Your task to perform on an android device: turn off smart reply in the gmail app Image 0: 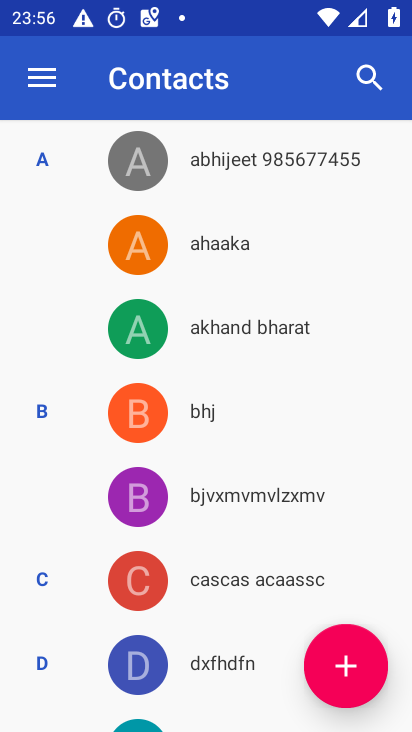
Step 0: press back button
Your task to perform on an android device: turn off smart reply in the gmail app Image 1: 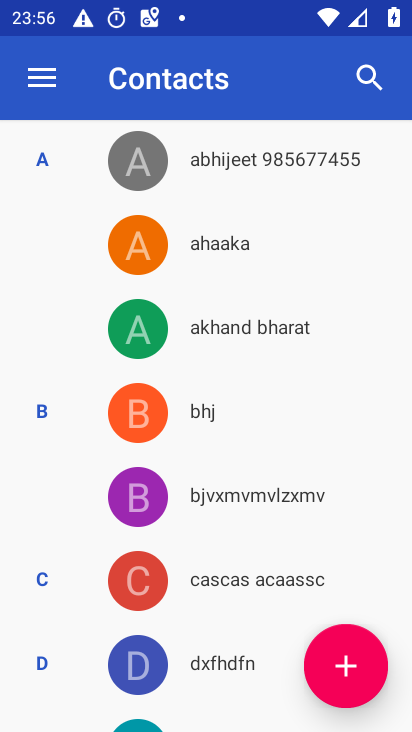
Step 1: press back button
Your task to perform on an android device: turn off smart reply in the gmail app Image 2: 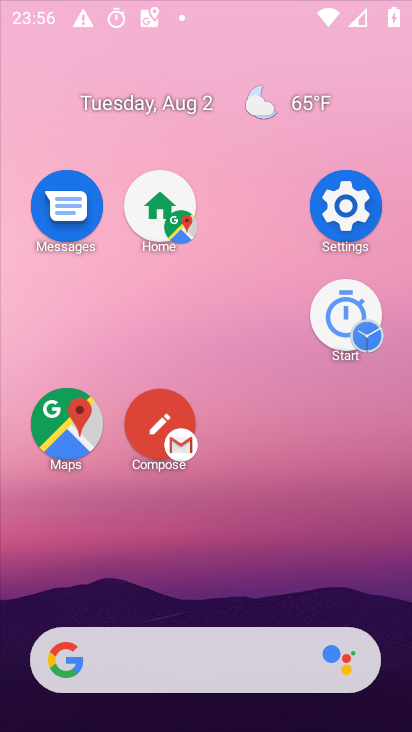
Step 2: press back button
Your task to perform on an android device: turn off smart reply in the gmail app Image 3: 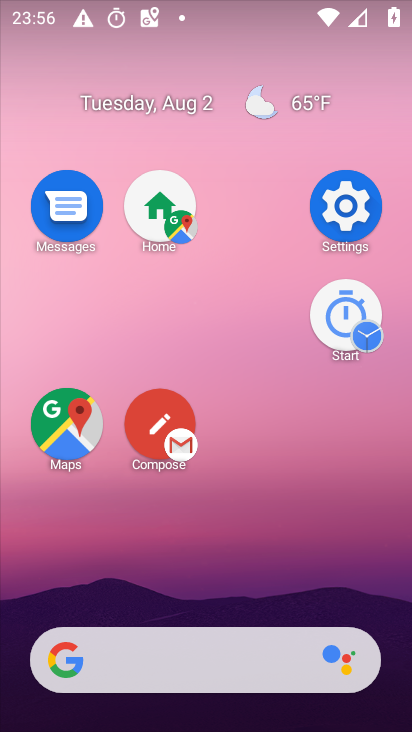
Step 3: press home button
Your task to perform on an android device: turn off smart reply in the gmail app Image 4: 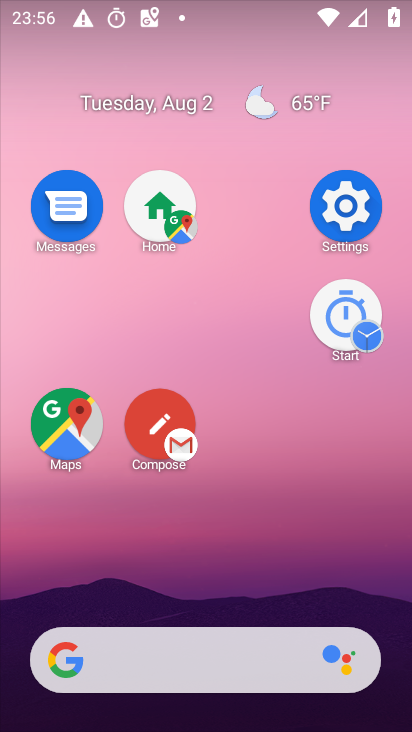
Step 4: drag from (203, 673) to (196, 252)
Your task to perform on an android device: turn off smart reply in the gmail app Image 5: 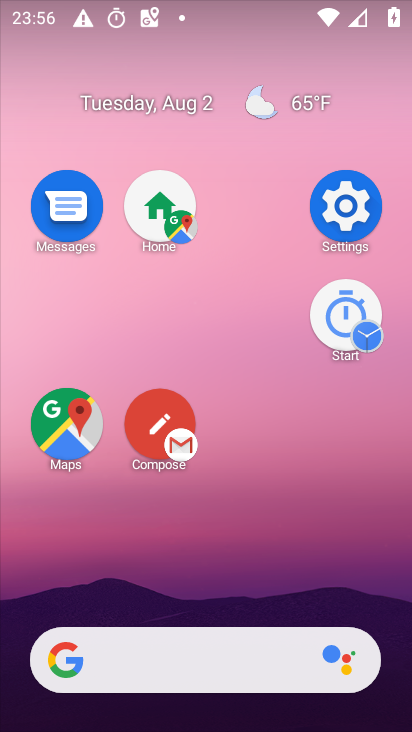
Step 5: drag from (242, 580) to (242, 206)
Your task to perform on an android device: turn off smart reply in the gmail app Image 6: 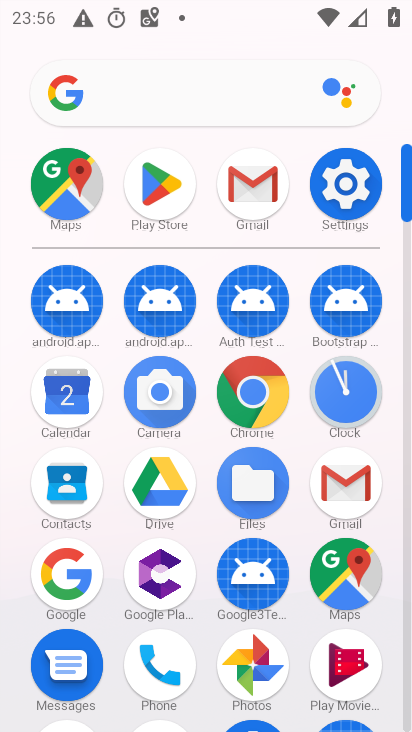
Step 6: drag from (207, 631) to (200, 318)
Your task to perform on an android device: turn off smart reply in the gmail app Image 7: 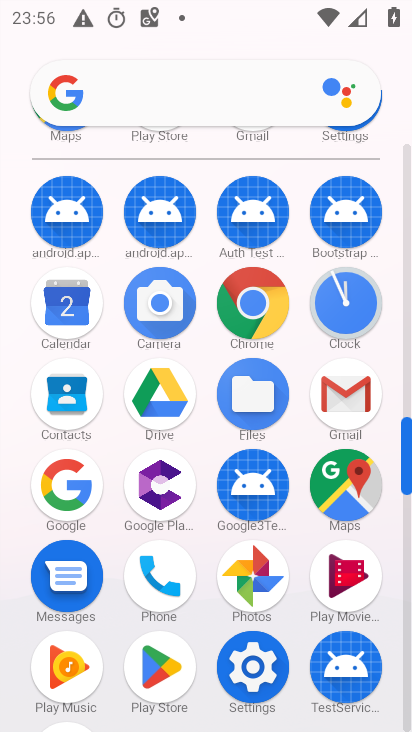
Step 7: click (333, 383)
Your task to perform on an android device: turn off smart reply in the gmail app Image 8: 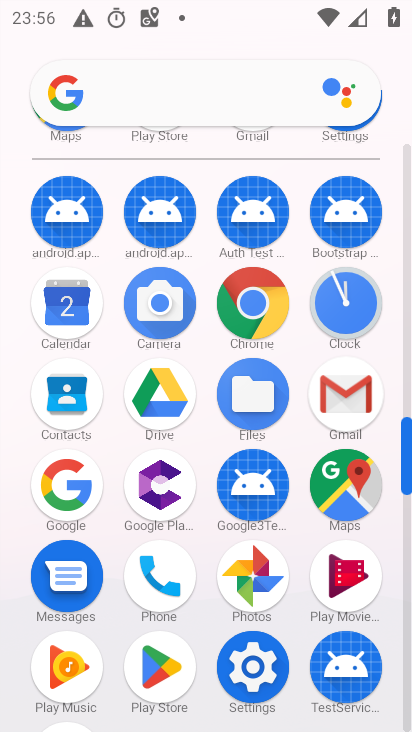
Step 8: click (335, 378)
Your task to perform on an android device: turn off smart reply in the gmail app Image 9: 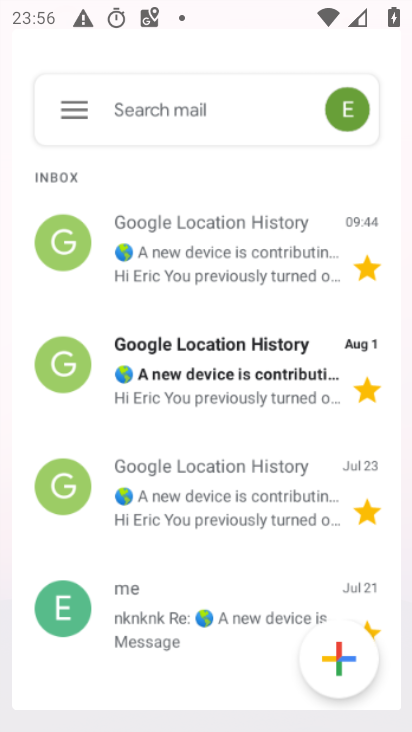
Step 9: click (335, 380)
Your task to perform on an android device: turn off smart reply in the gmail app Image 10: 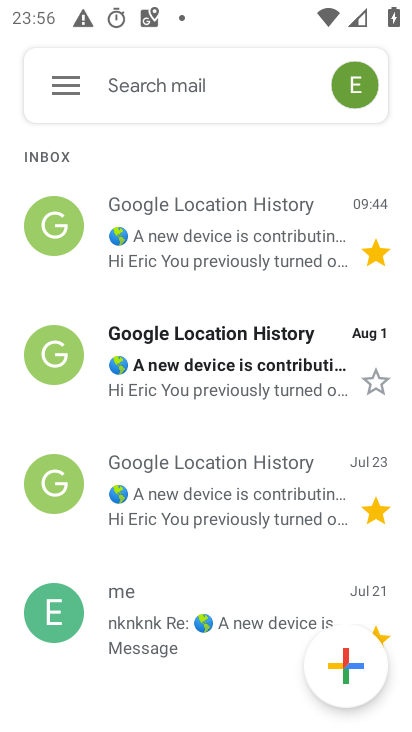
Step 10: press back button
Your task to perform on an android device: turn off smart reply in the gmail app Image 11: 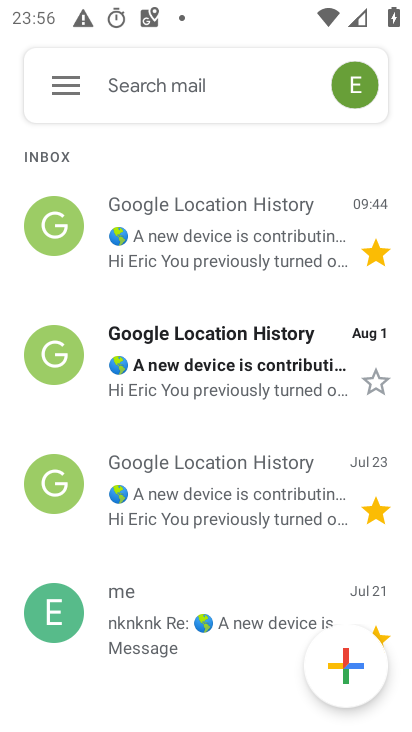
Step 11: press back button
Your task to perform on an android device: turn off smart reply in the gmail app Image 12: 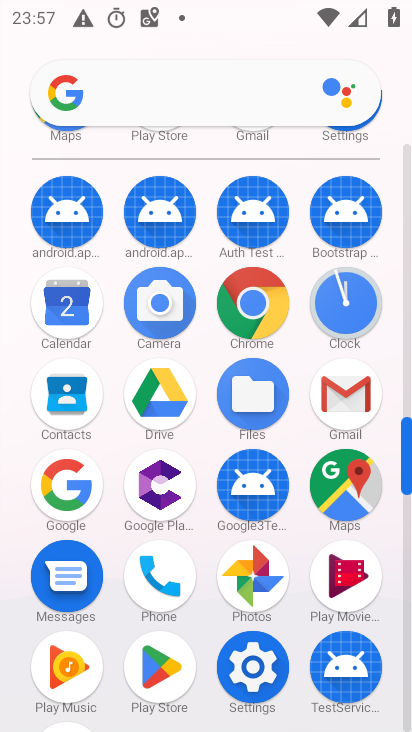
Step 12: press back button
Your task to perform on an android device: turn off smart reply in the gmail app Image 13: 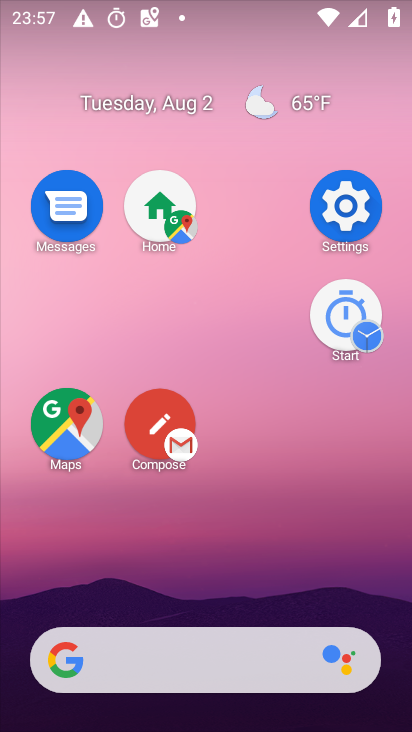
Step 13: drag from (208, 441) to (155, 82)
Your task to perform on an android device: turn off smart reply in the gmail app Image 14: 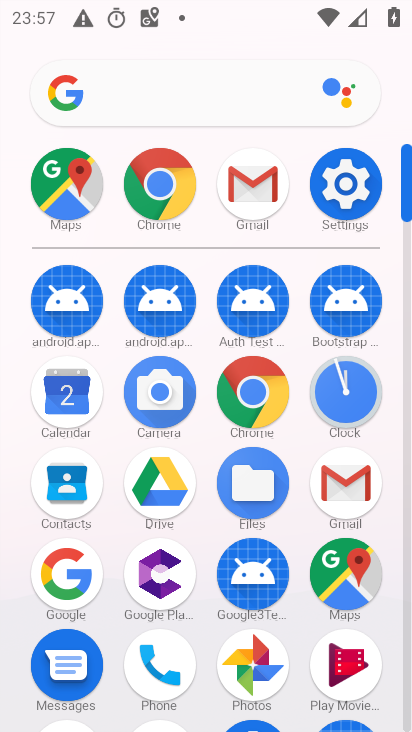
Step 14: click (359, 478)
Your task to perform on an android device: turn off smart reply in the gmail app Image 15: 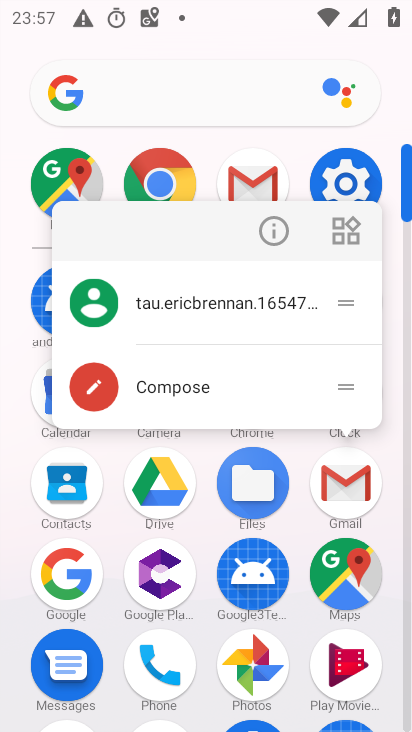
Step 15: click (186, 377)
Your task to perform on an android device: turn off smart reply in the gmail app Image 16: 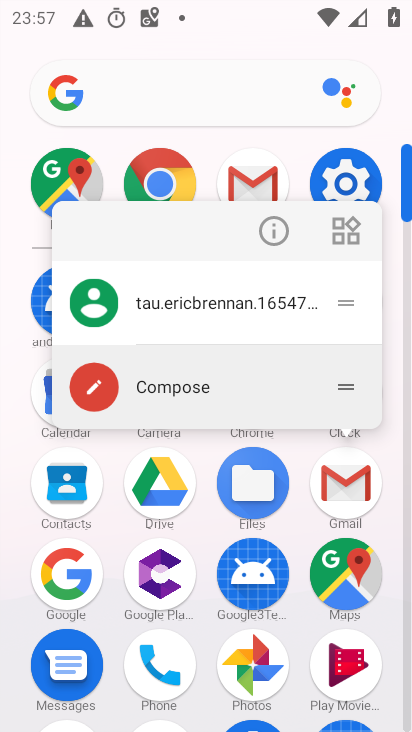
Step 16: click (178, 373)
Your task to perform on an android device: turn off smart reply in the gmail app Image 17: 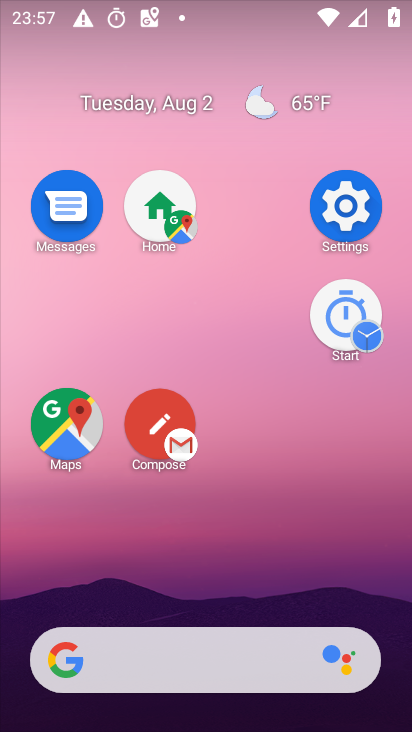
Step 17: drag from (241, 677) to (157, 220)
Your task to perform on an android device: turn off smart reply in the gmail app Image 18: 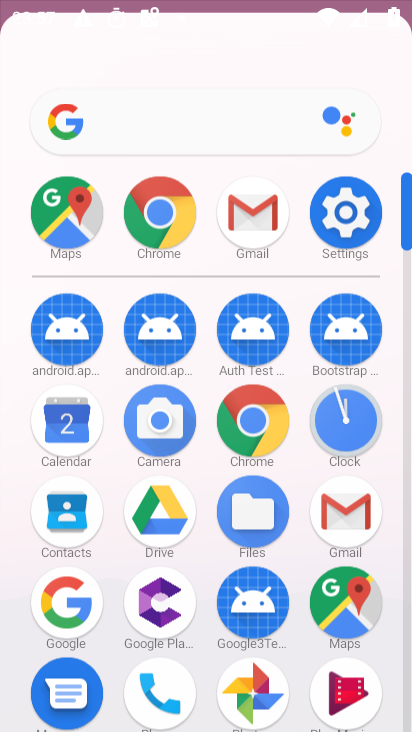
Step 18: drag from (223, 729) to (220, 458)
Your task to perform on an android device: turn off smart reply in the gmail app Image 19: 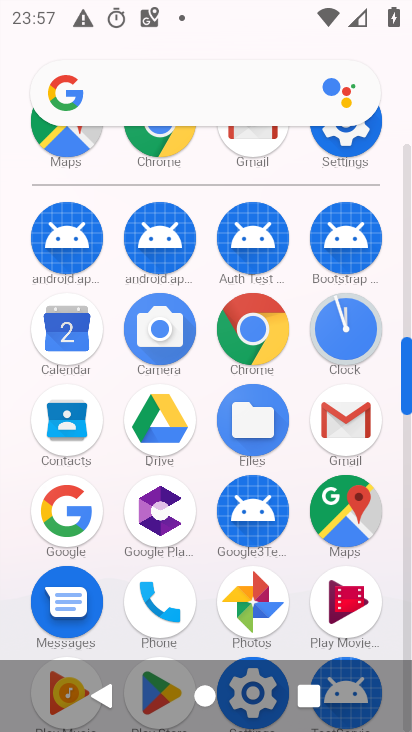
Step 19: click (350, 418)
Your task to perform on an android device: turn off smart reply in the gmail app Image 20: 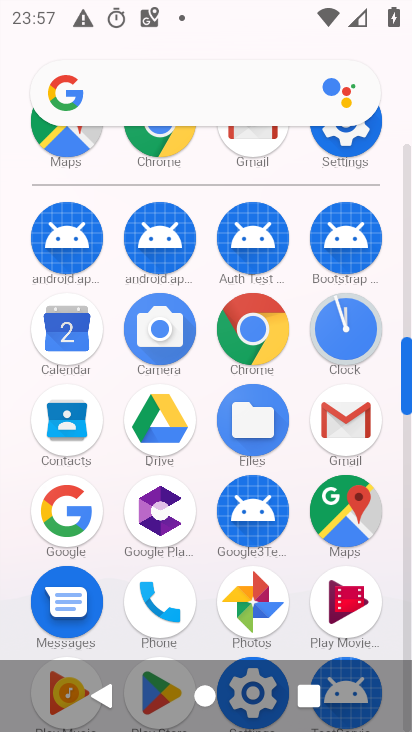
Step 20: click (350, 418)
Your task to perform on an android device: turn off smart reply in the gmail app Image 21: 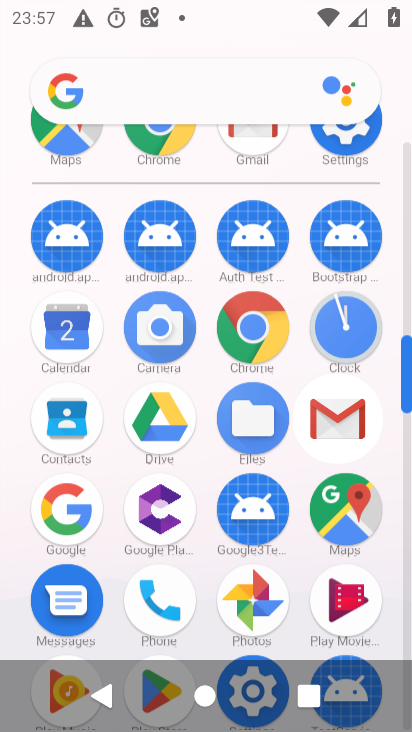
Step 21: click (346, 422)
Your task to perform on an android device: turn off smart reply in the gmail app Image 22: 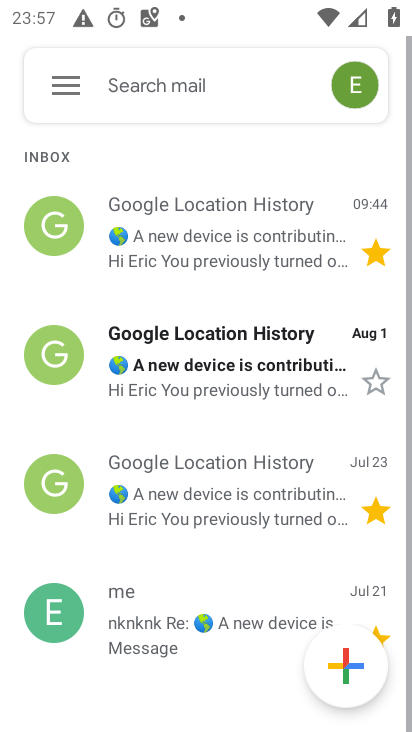
Step 22: drag from (69, 86) to (119, 349)
Your task to perform on an android device: turn off smart reply in the gmail app Image 23: 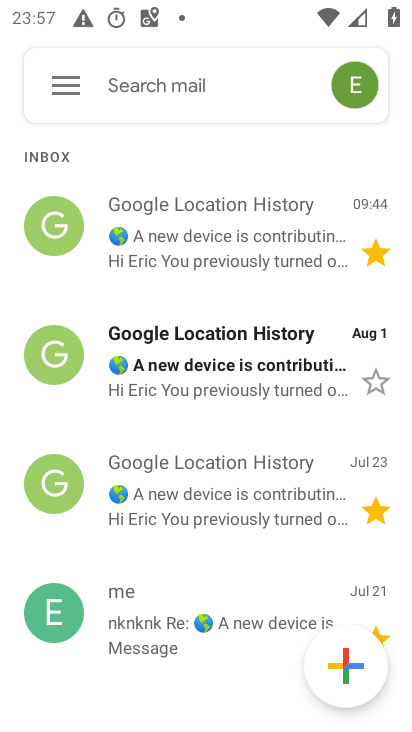
Step 23: drag from (73, 97) to (136, 467)
Your task to perform on an android device: turn off smart reply in the gmail app Image 24: 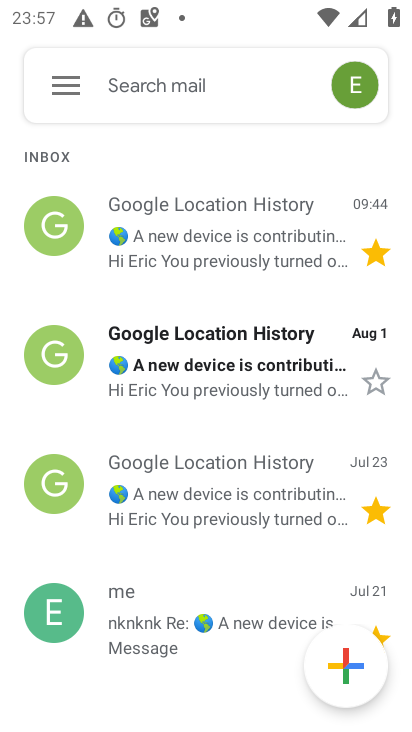
Step 24: click (67, 88)
Your task to perform on an android device: turn off smart reply in the gmail app Image 25: 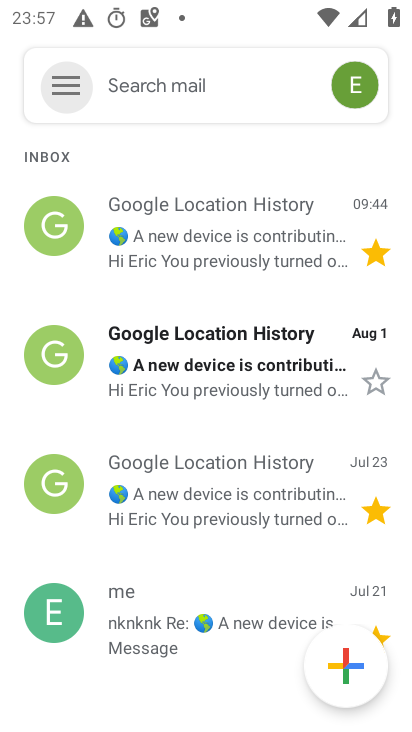
Step 25: click (67, 88)
Your task to perform on an android device: turn off smart reply in the gmail app Image 26: 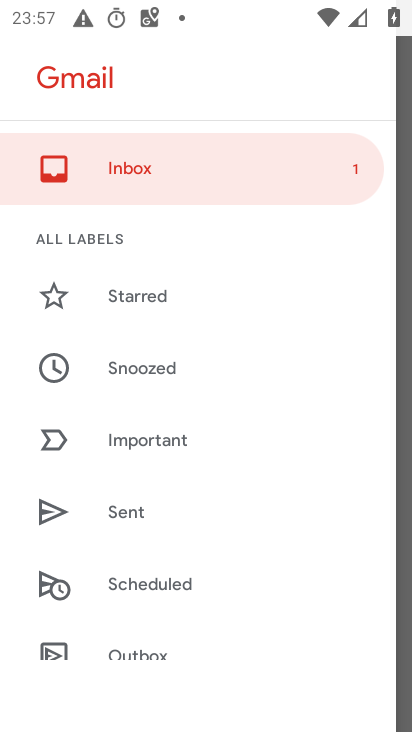
Step 26: drag from (175, 607) to (168, 358)
Your task to perform on an android device: turn off smart reply in the gmail app Image 27: 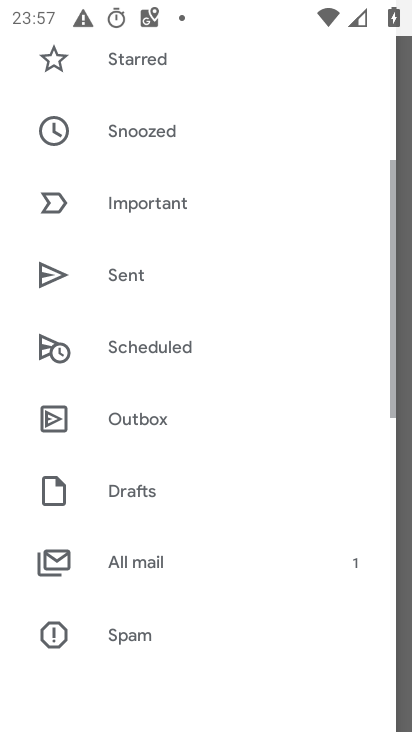
Step 27: drag from (114, 500) to (109, 428)
Your task to perform on an android device: turn off smart reply in the gmail app Image 28: 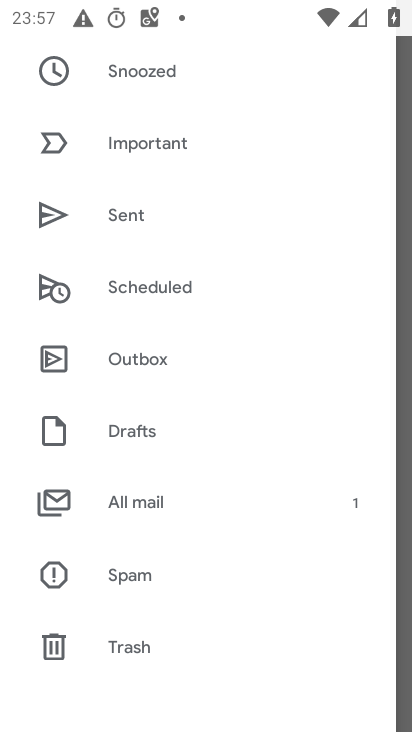
Step 28: drag from (167, 548) to (197, 201)
Your task to perform on an android device: turn off smart reply in the gmail app Image 29: 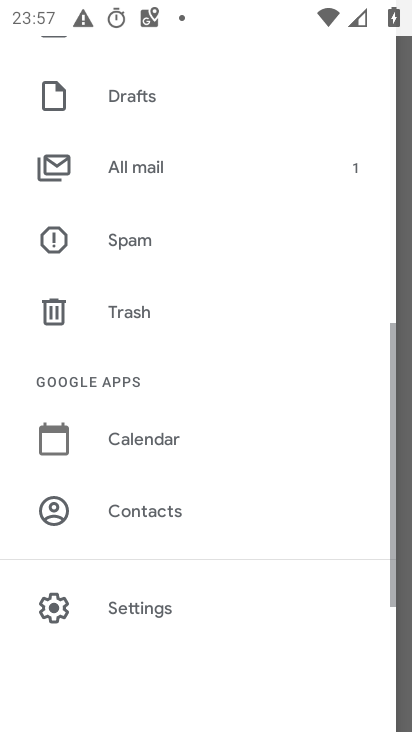
Step 29: drag from (193, 390) to (193, 187)
Your task to perform on an android device: turn off smart reply in the gmail app Image 30: 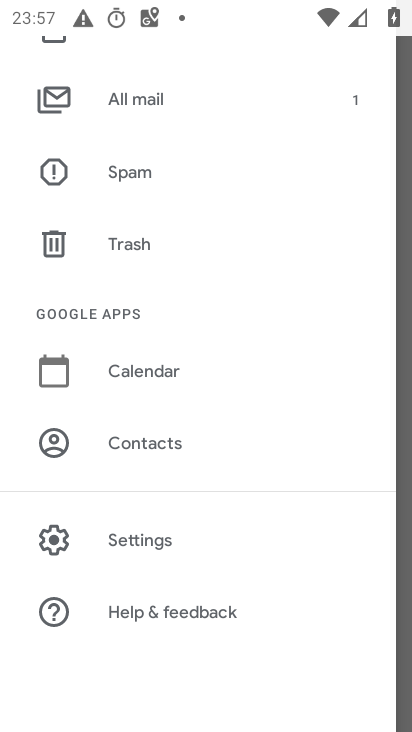
Step 30: click (149, 538)
Your task to perform on an android device: turn off smart reply in the gmail app Image 31: 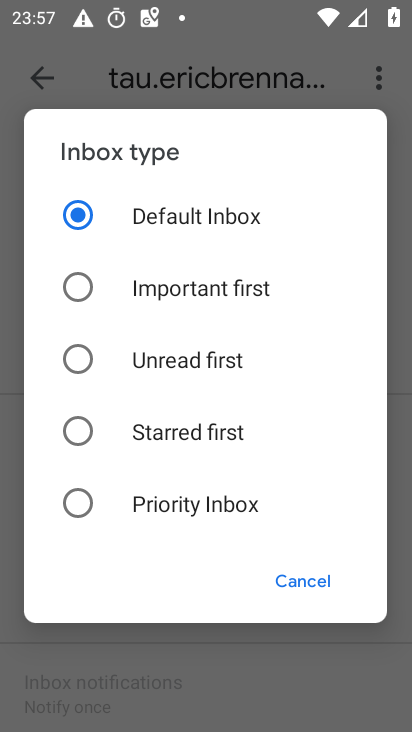
Step 31: click (299, 570)
Your task to perform on an android device: turn off smart reply in the gmail app Image 32: 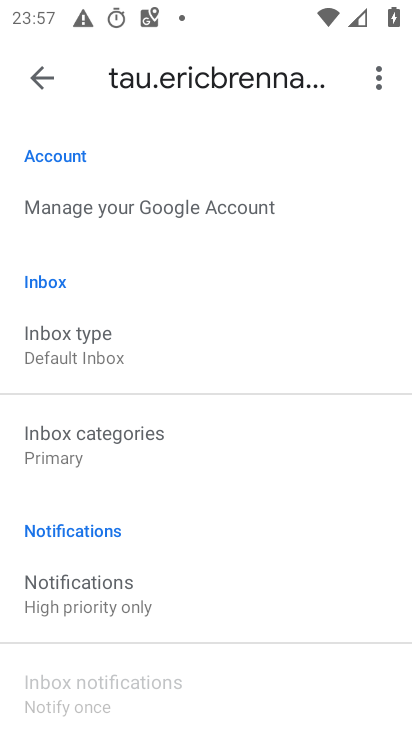
Step 32: drag from (110, 584) to (115, 165)
Your task to perform on an android device: turn off smart reply in the gmail app Image 33: 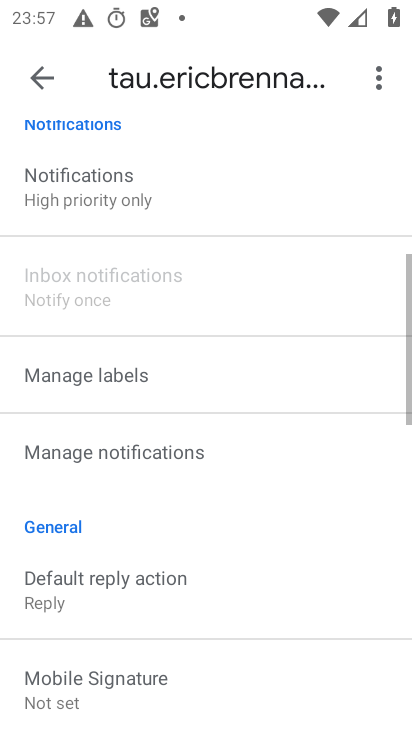
Step 33: click (98, 142)
Your task to perform on an android device: turn off smart reply in the gmail app Image 34: 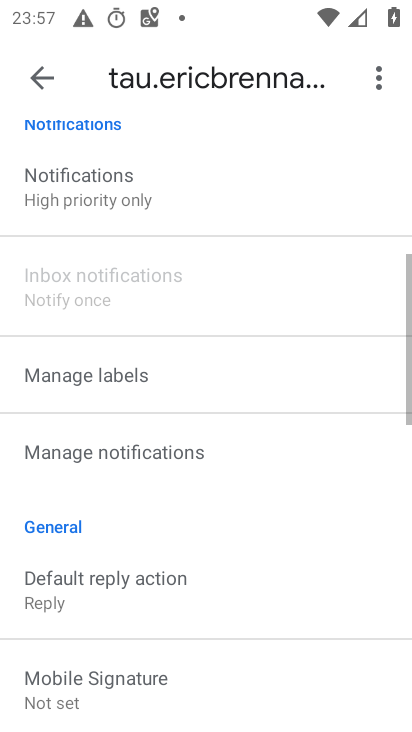
Step 34: drag from (81, 465) to (81, 254)
Your task to perform on an android device: turn off smart reply in the gmail app Image 35: 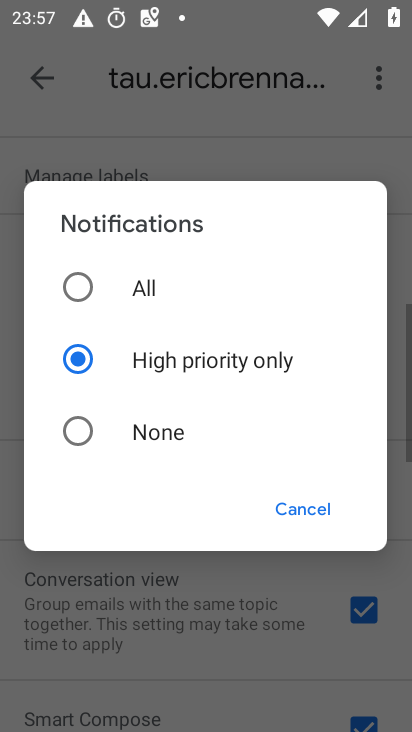
Step 35: drag from (103, 600) to (143, 243)
Your task to perform on an android device: turn off smart reply in the gmail app Image 36: 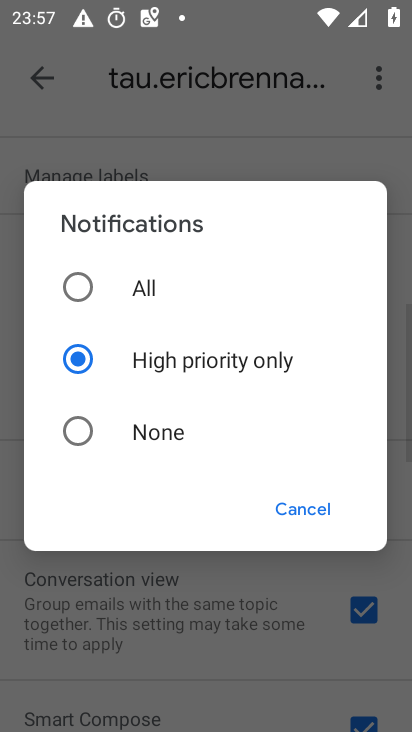
Step 36: drag from (165, 509) to (173, 300)
Your task to perform on an android device: turn off smart reply in the gmail app Image 37: 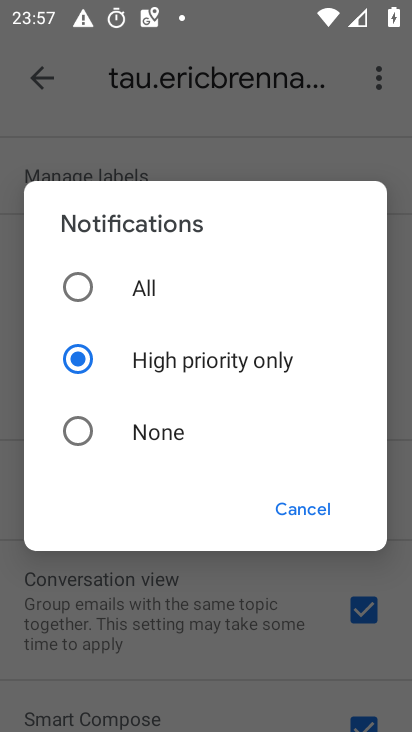
Step 37: click (304, 503)
Your task to perform on an android device: turn off smart reply in the gmail app Image 38: 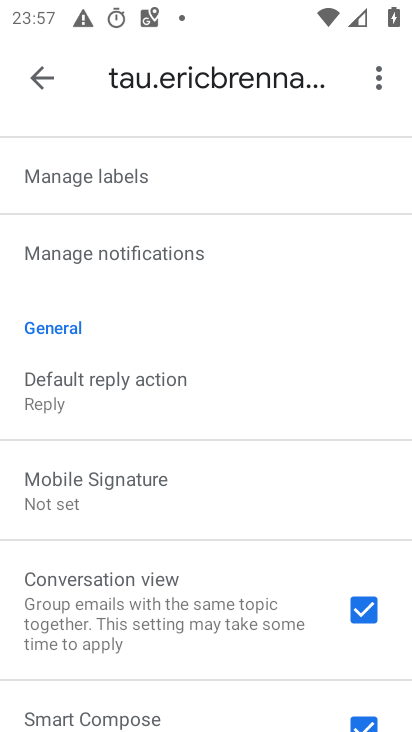
Step 38: drag from (210, 620) to (205, 274)
Your task to perform on an android device: turn off smart reply in the gmail app Image 39: 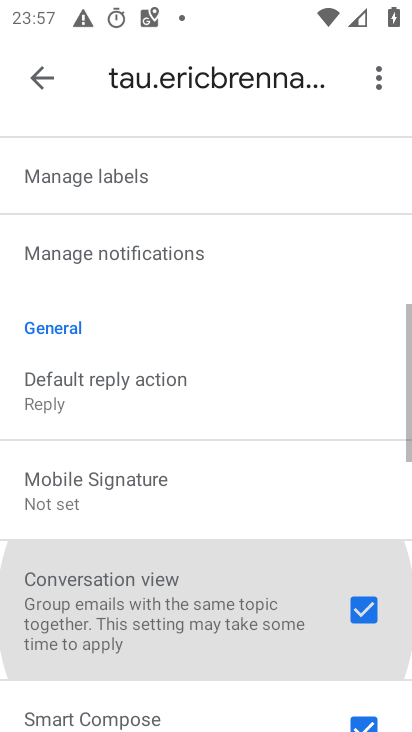
Step 39: drag from (238, 527) to (287, 238)
Your task to perform on an android device: turn off smart reply in the gmail app Image 40: 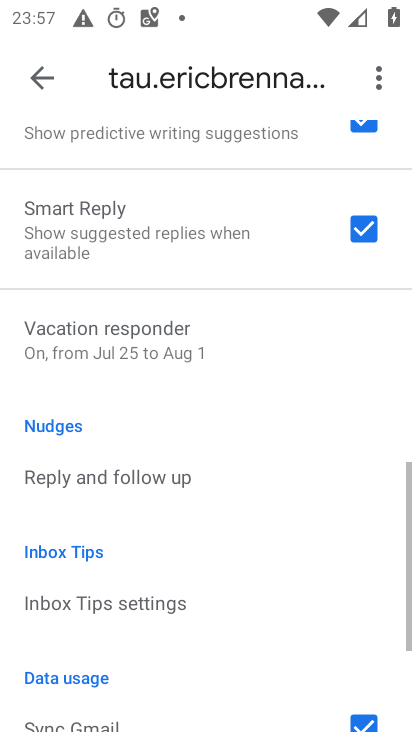
Step 40: drag from (291, 428) to (296, 91)
Your task to perform on an android device: turn off smart reply in the gmail app Image 41: 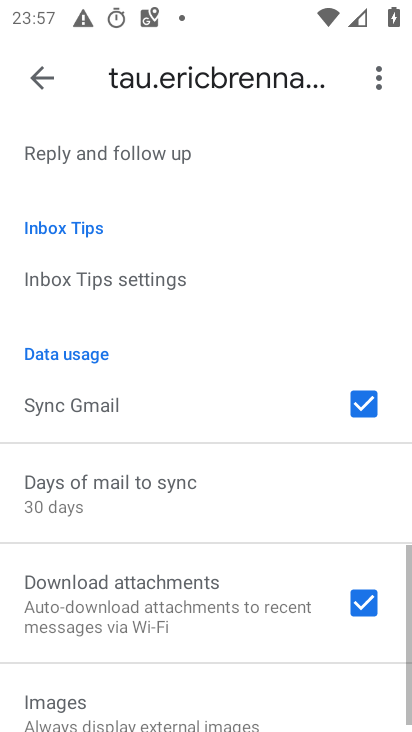
Step 41: drag from (228, 563) to (217, 396)
Your task to perform on an android device: turn off smart reply in the gmail app Image 42: 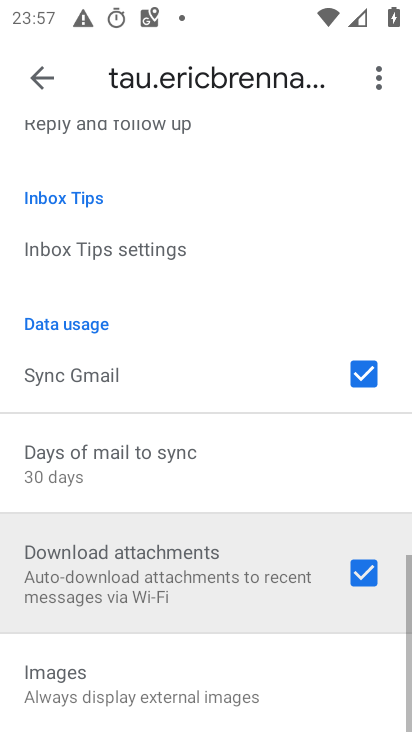
Step 42: drag from (219, 498) to (248, 252)
Your task to perform on an android device: turn off smart reply in the gmail app Image 43: 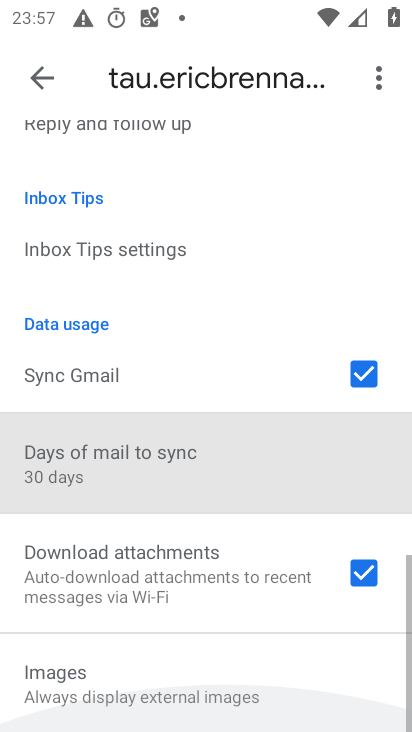
Step 43: drag from (239, 462) to (249, 265)
Your task to perform on an android device: turn off smart reply in the gmail app Image 44: 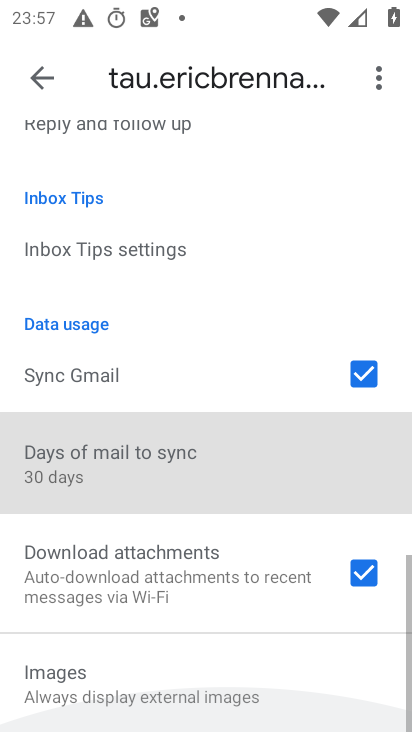
Step 44: drag from (233, 515) to (245, 275)
Your task to perform on an android device: turn off smart reply in the gmail app Image 45: 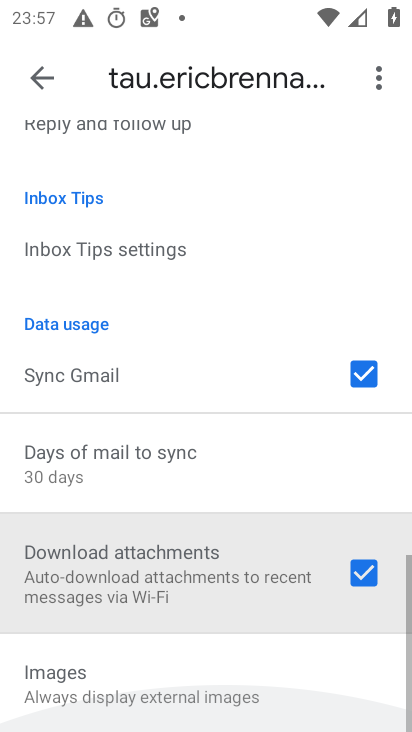
Step 45: drag from (222, 502) to (245, 354)
Your task to perform on an android device: turn off smart reply in the gmail app Image 46: 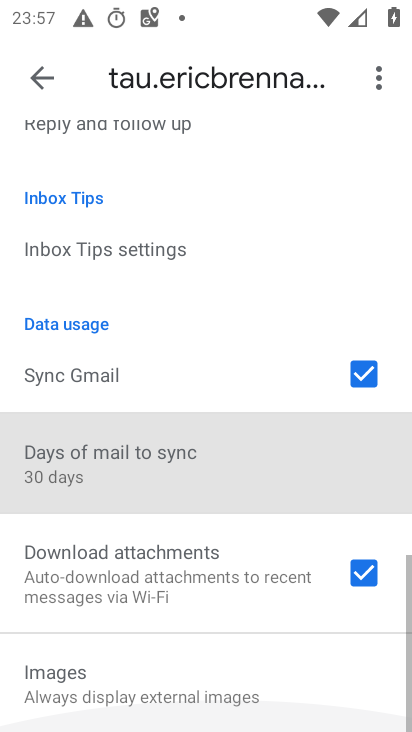
Step 46: drag from (205, 558) to (200, 351)
Your task to perform on an android device: turn off smart reply in the gmail app Image 47: 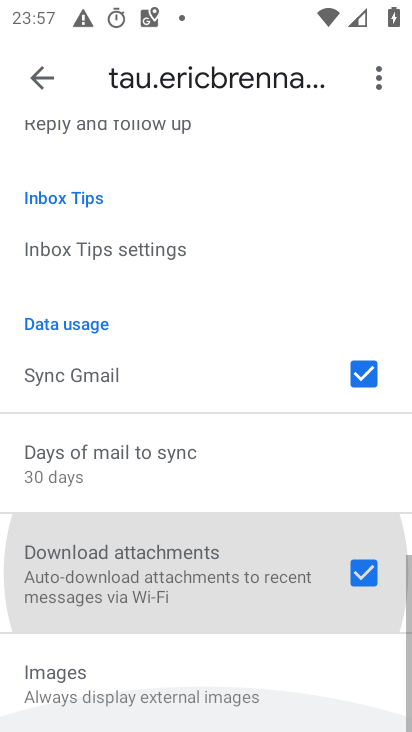
Step 47: drag from (168, 551) to (170, 298)
Your task to perform on an android device: turn off smart reply in the gmail app Image 48: 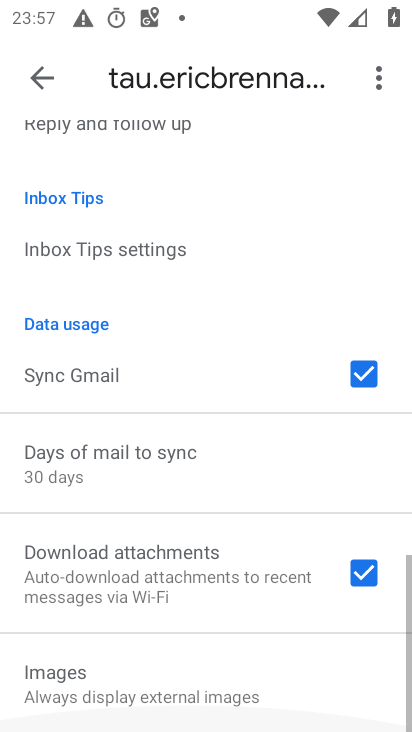
Step 48: drag from (146, 615) to (169, 349)
Your task to perform on an android device: turn off smart reply in the gmail app Image 49: 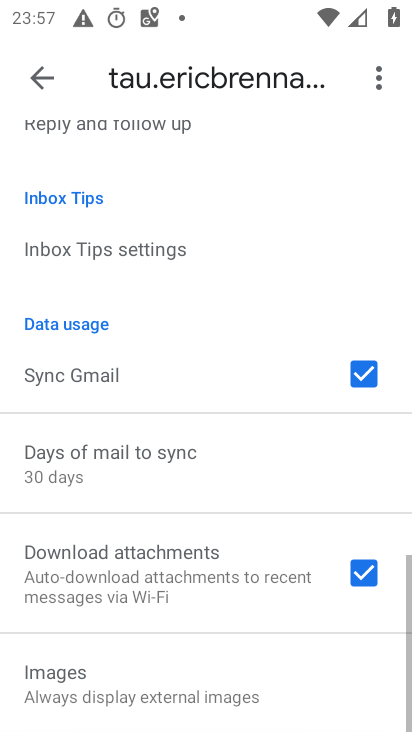
Step 49: click (188, 325)
Your task to perform on an android device: turn off smart reply in the gmail app Image 50: 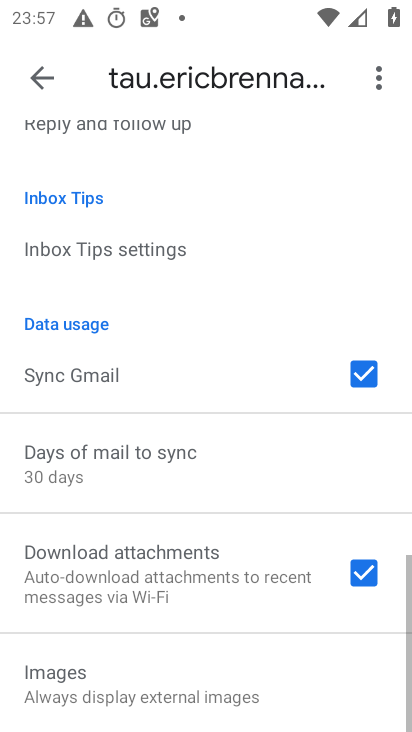
Step 50: drag from (193, 665) to (212, 333)
Your task to perform on an android device: turn off smart reply in the gmail app Image 51: 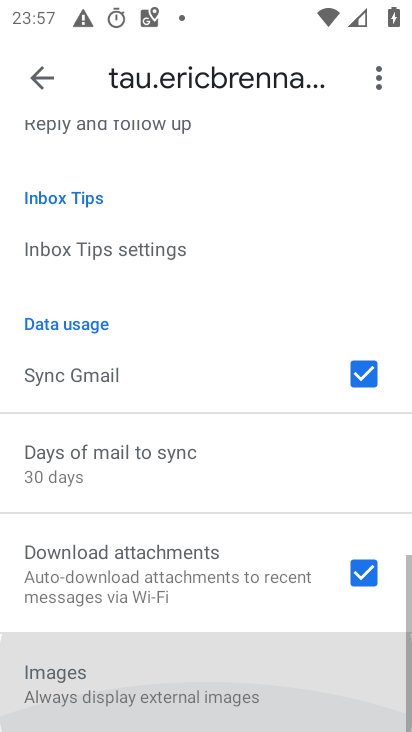
Step 51: drag from (228, 611) to (267, 299)
Your task to perform on an android device: turn off smart reply in the gmail app Image 52: 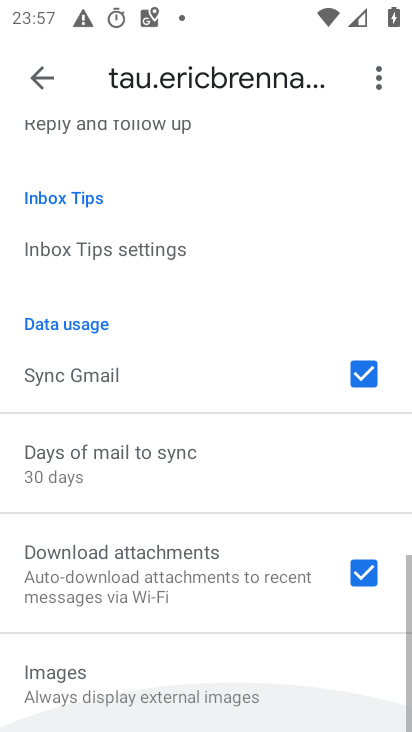
Step 52: drag from (291, 619) to (337, 319)
Your task to perform on an android device: turn off smart reply in the gmail app Image 53: 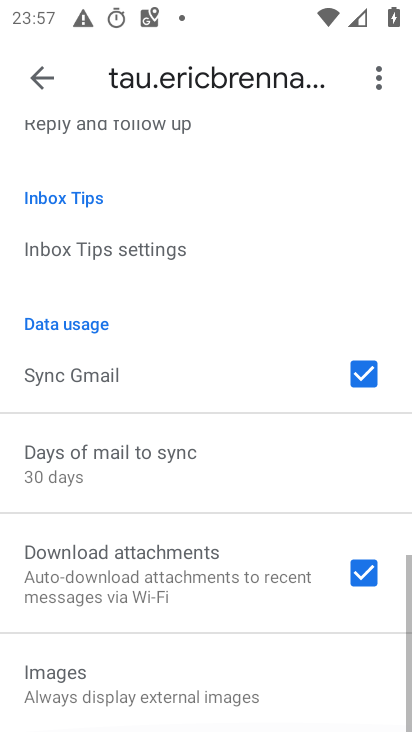
Step 53: drag from (273, 611) to (237, 228)
Your task to perform on an android device: turn off smart reply in the gmail app Image 54: 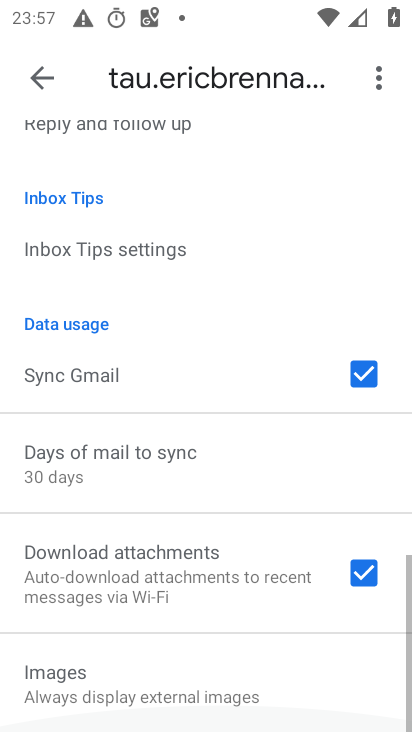
Step 54: drag from (263, 702) to (274, 222)
Your task to perform on an android device: turn off smart reply in the gmail app Image 55: 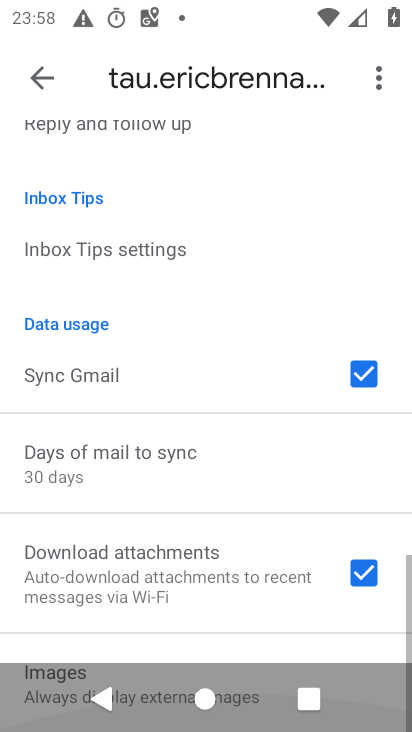
Step 55: drag from (199, 641) to (172, 114)
Your task to perform on an android device: turn off smart reply in the gmail app Image 56: 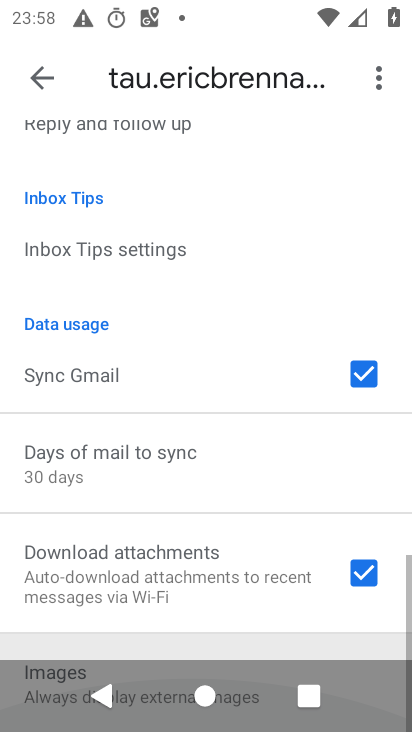
Step 56: drag from (173, 486) to (198, 188)
Your task to perform on an android device: turn off smart reply in the gmail app Image 57: 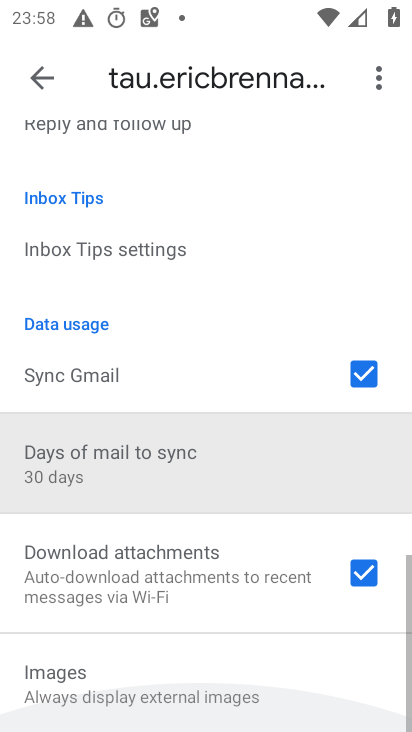
Step 57: drag from (187, 245) to (168, 546)
Your task to perform on an android device: turn off smart reply in the gmail app Image 58: 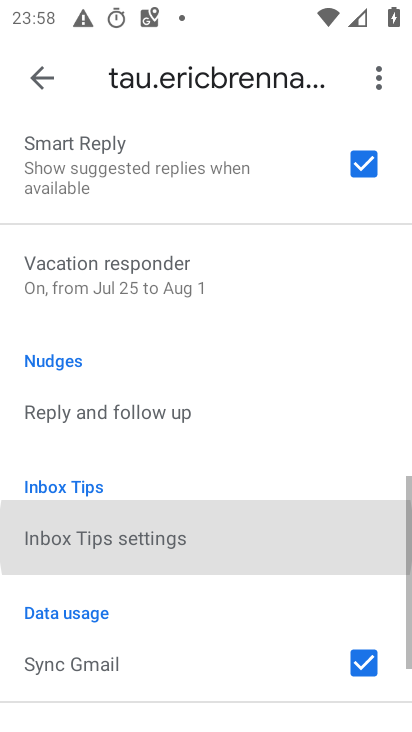
Step 58: drag from (170, 362) to (159, 677)
Your task to perform on an android device: turn off smart reply in the gmail app Image 59: 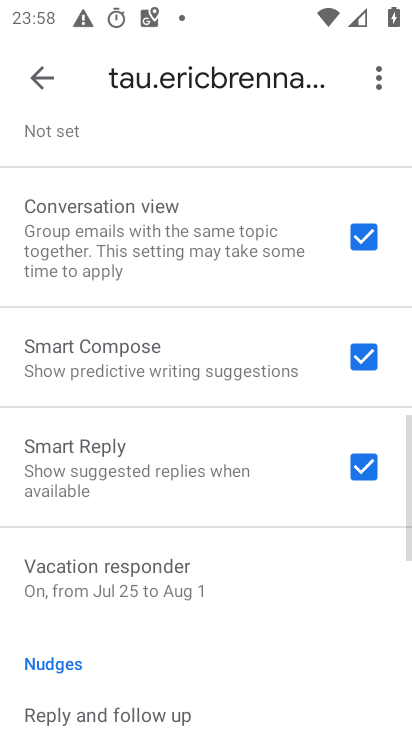
Step 59: click (359, 465)
Your task to perform on an android device: turn off smart reply in the gmail app Image 60: 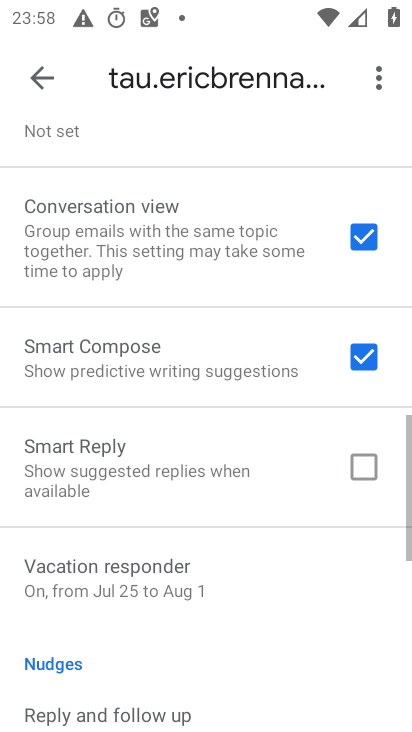
Step 60: task complete